Your task to perform on an android device: toggle improve location accuracy Image 0: 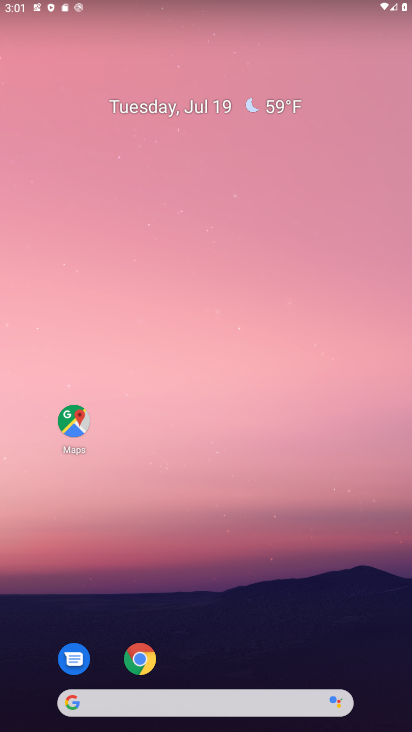
Step 0: drag from (197, 706) to (210, 160)
Your task to perform on an android device: toggle improve location accuracy Image 1: 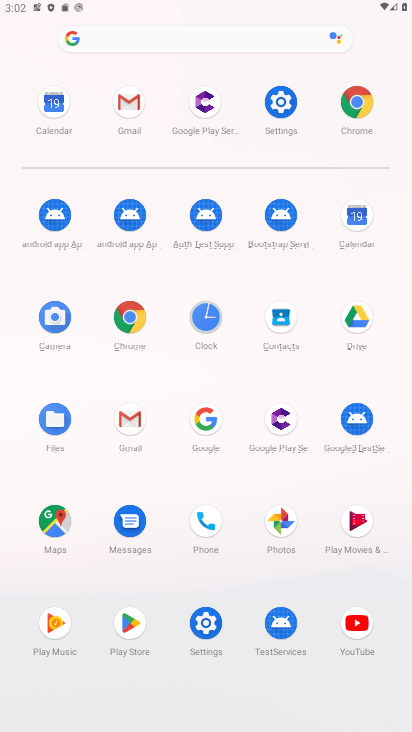
Step 1: click (282, 104)
Your task to perform on an android device: toggle improve location accuracy Image 2: 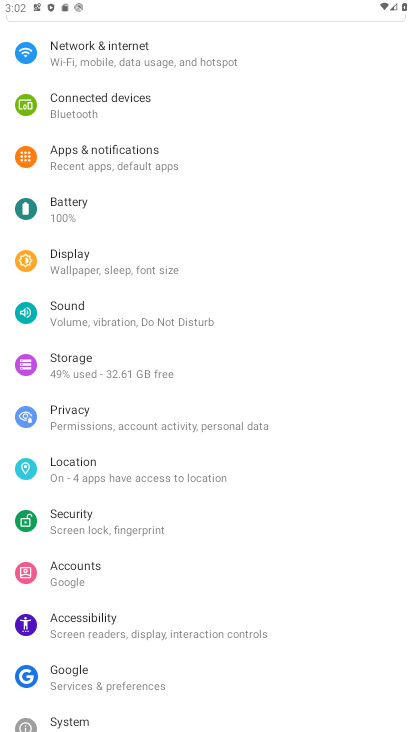
Step 2: click (98, 468)
Your task to perform on an android device: toggle improve location accuracy Image 3: 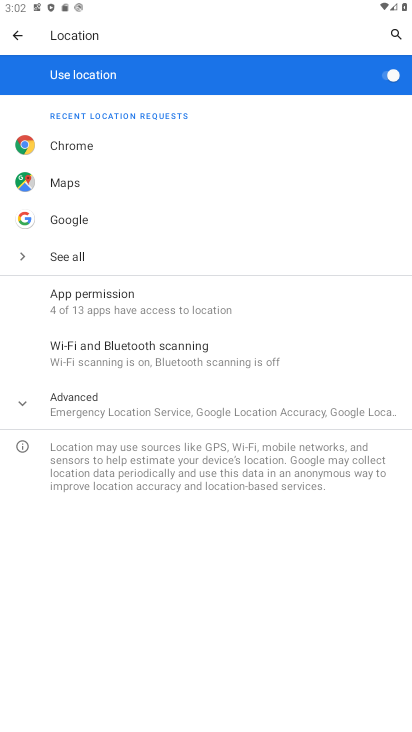
Step 3: click (117, 409)
Your task to perform on an android device: toggle improve location accuracy Image 4: 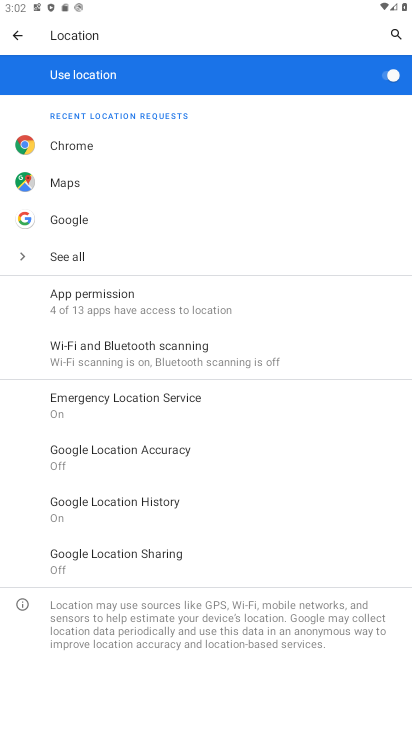
Step 4: click (126, 456)
Your task to perform on an android device: toggle improve location accuracy Image 5: 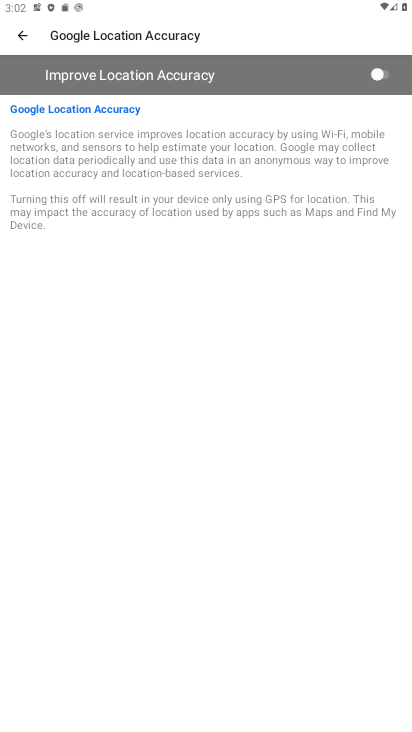
Step 5: click (381, 74)
Your task to perform on an android device: toggle improve location accuracy Image 6: 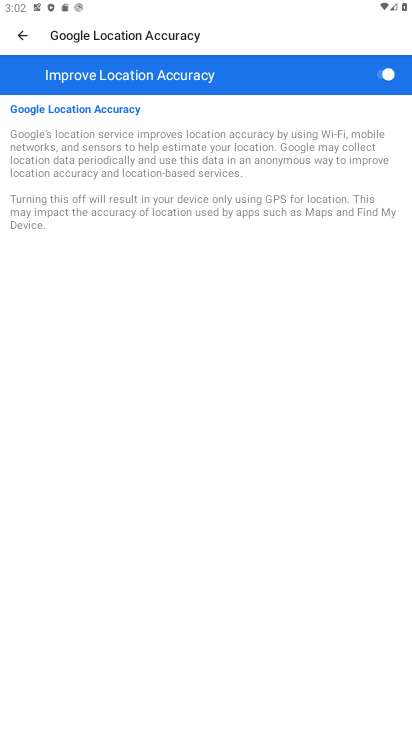
Step 6: task complete